Your task to perform on an android device: Open Reddit.com Image 0: 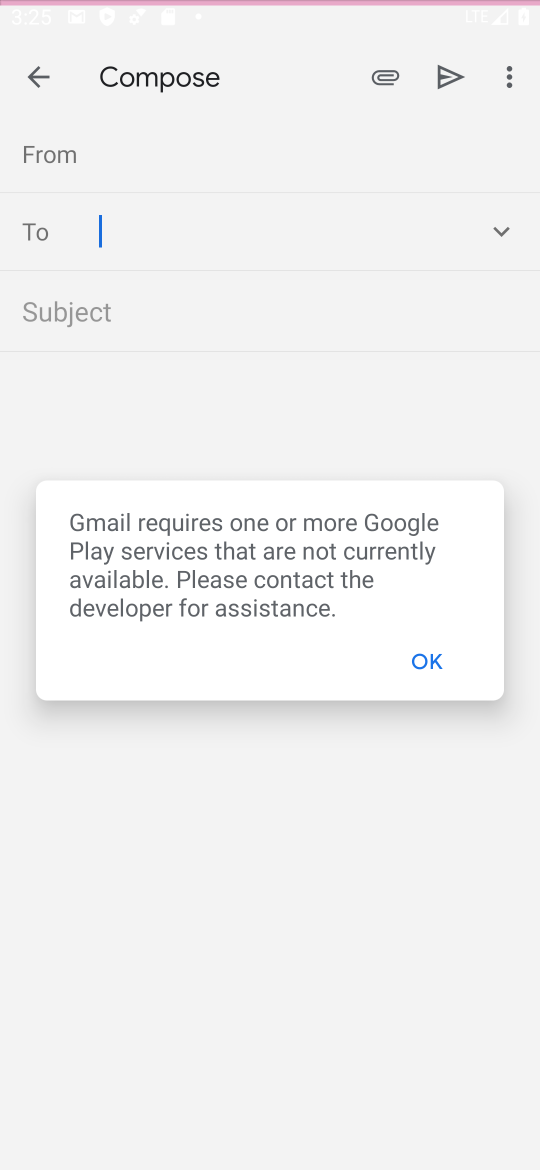
Step 0: press home button
Your task to perform on an android device: Open Reddit.com Image 1: 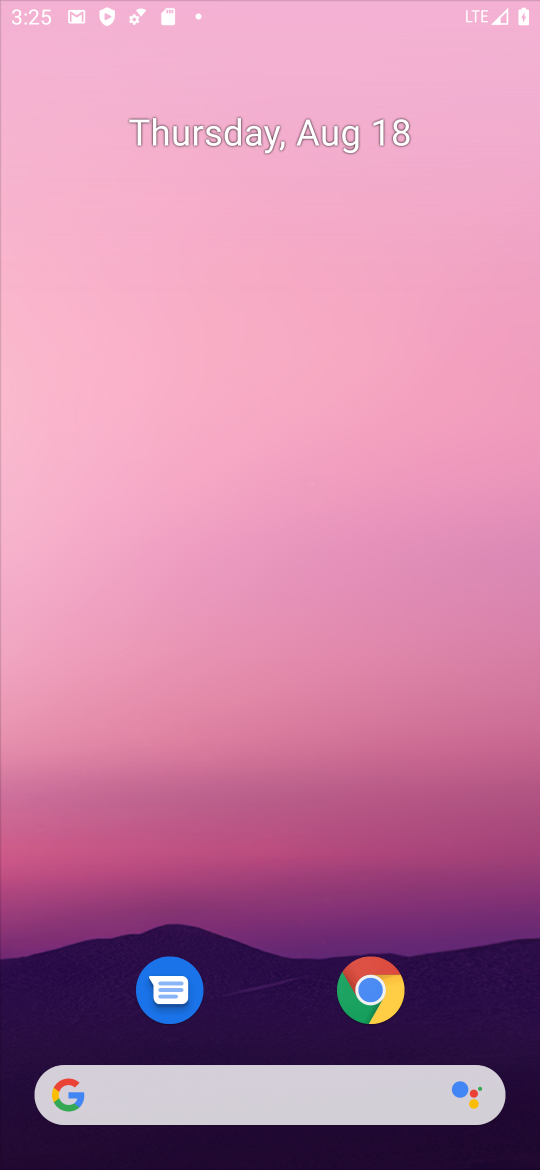
Step 1: press home button
Your task to perform on an android device: Open Reddit.com Image 2: 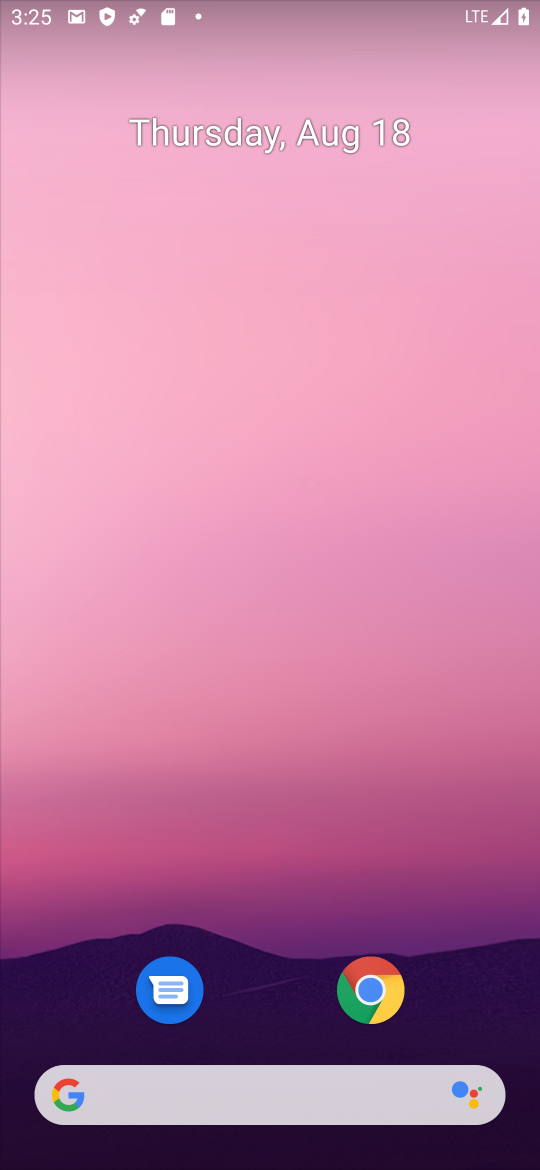
Step 2: press home button
Your task to perform on an android device: Open Reddit.com Image 3: 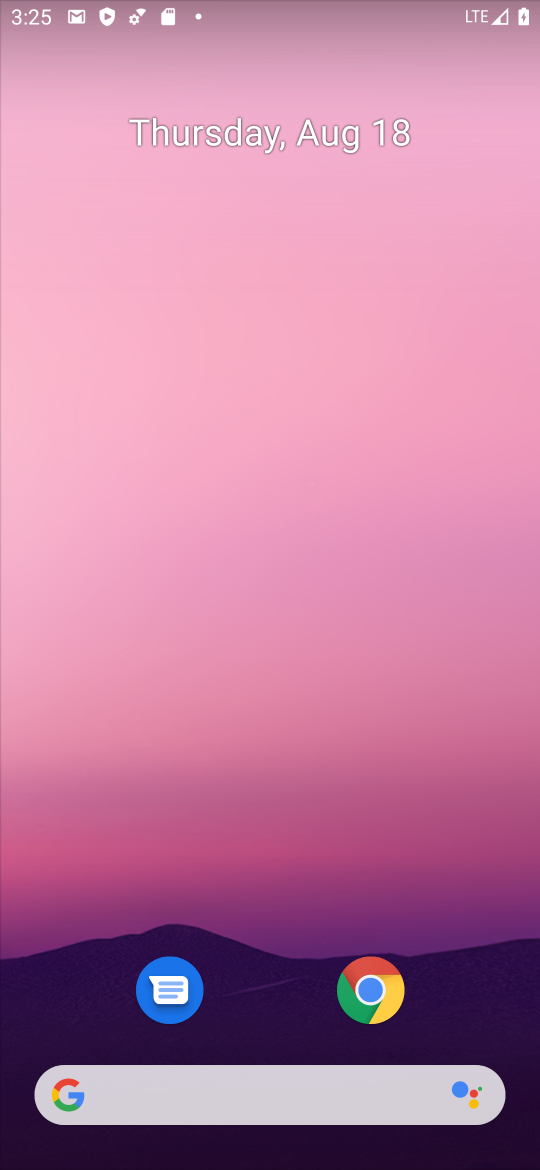
Step 3: drag from (257, 396) to (257, 68)
Your task to perform on an android device: Open Reddit.com Image 4: 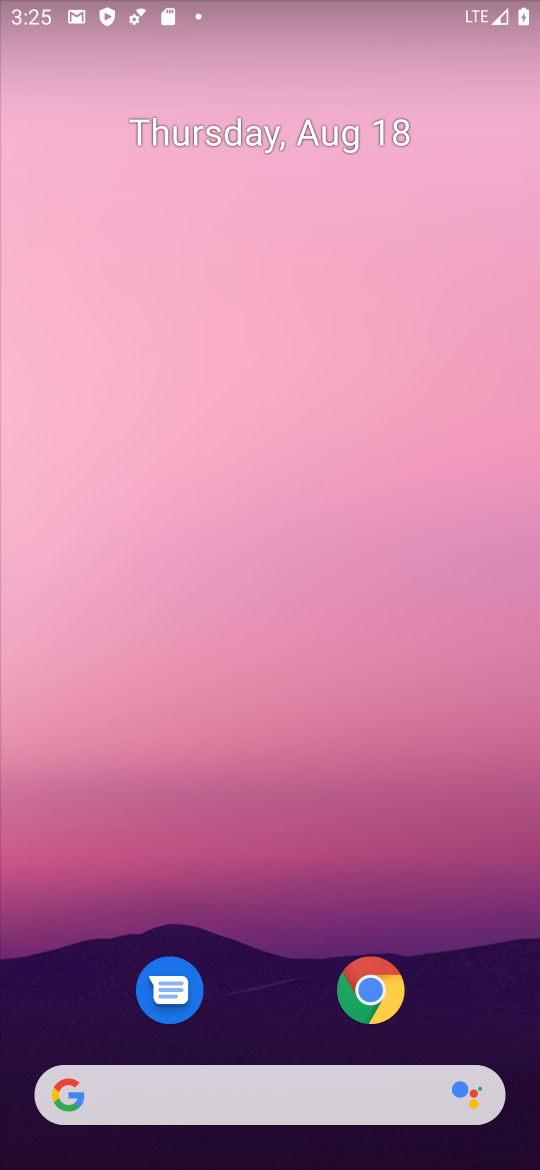
Step 4: drag from (275, 720) to (296, 46)
Your task to perform on an android device: Open Reddit.com Image 5: 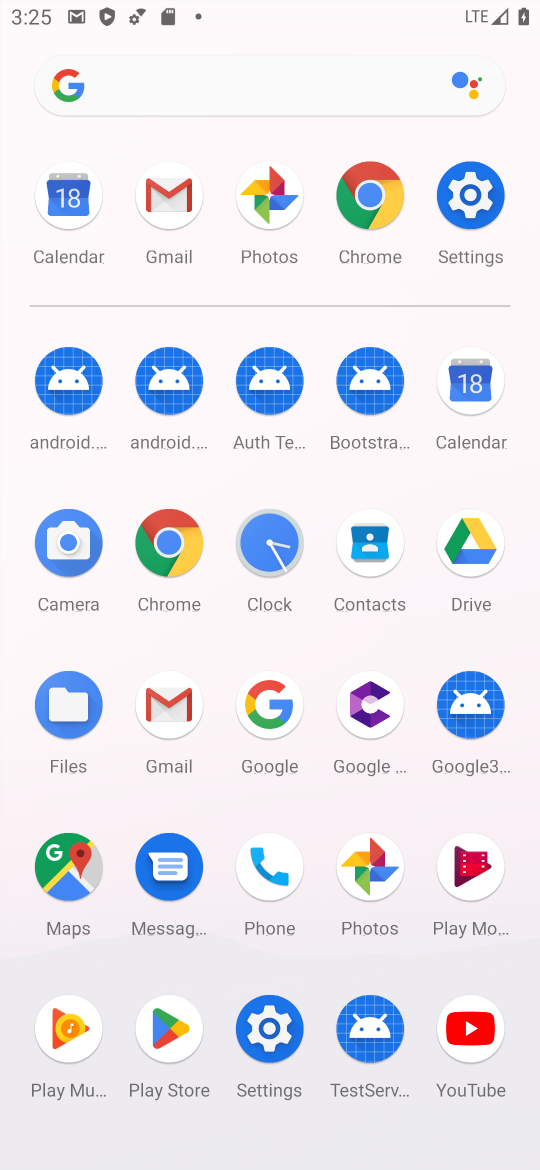
Step 5: click (172, 549)
Your task to perform on an android device: Open Reddit.com Image 6: 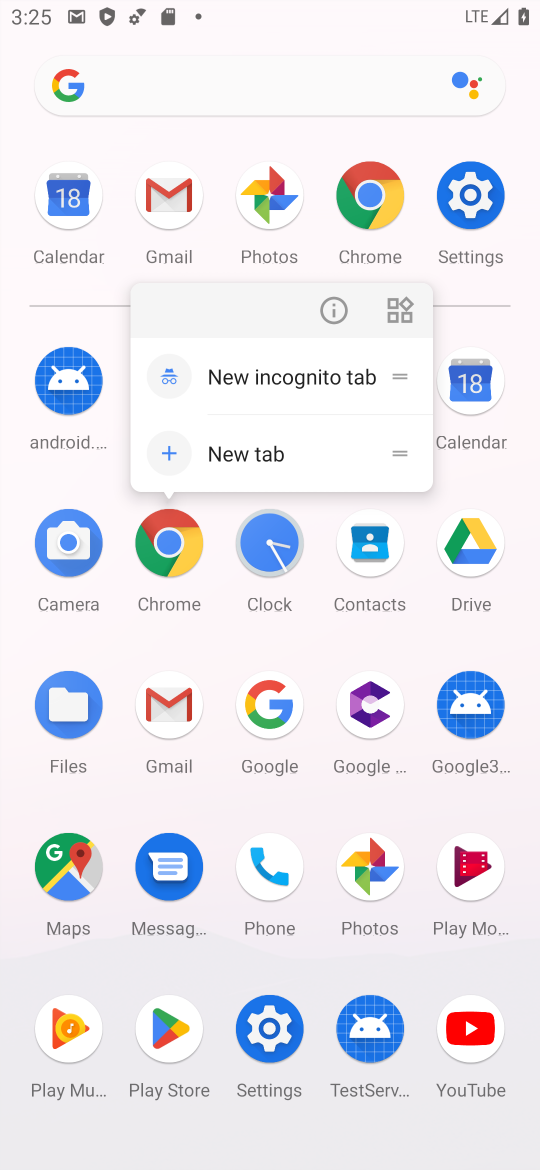
Step 6: click (157, 546)
Your task to perform on an android device: Open Reddit.com Image 7: 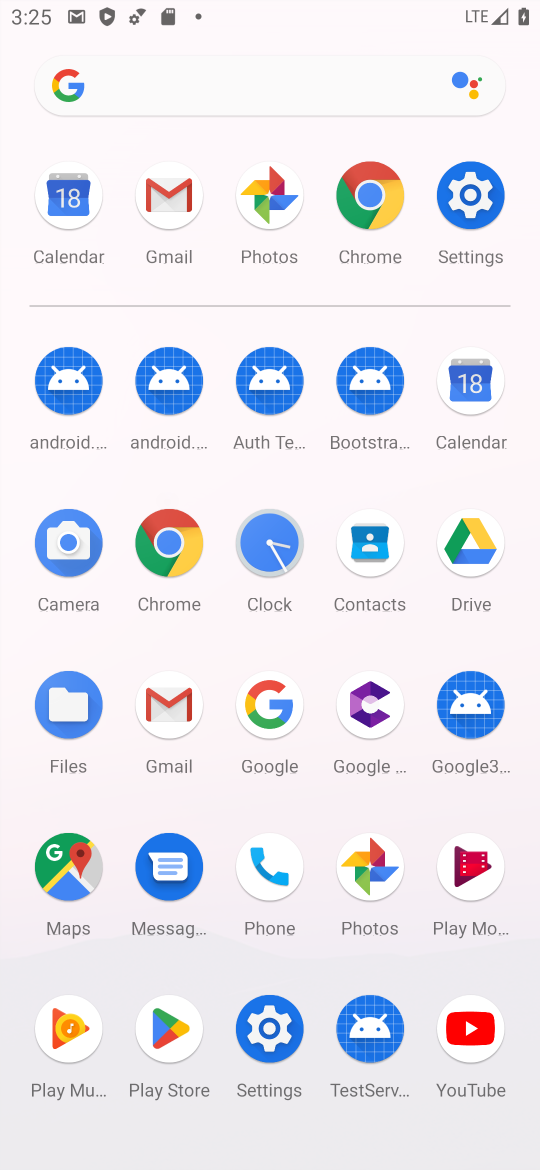
Step 7: click (167, 546)
Your task to perform on an android device: Open Reddit.com Image 8: 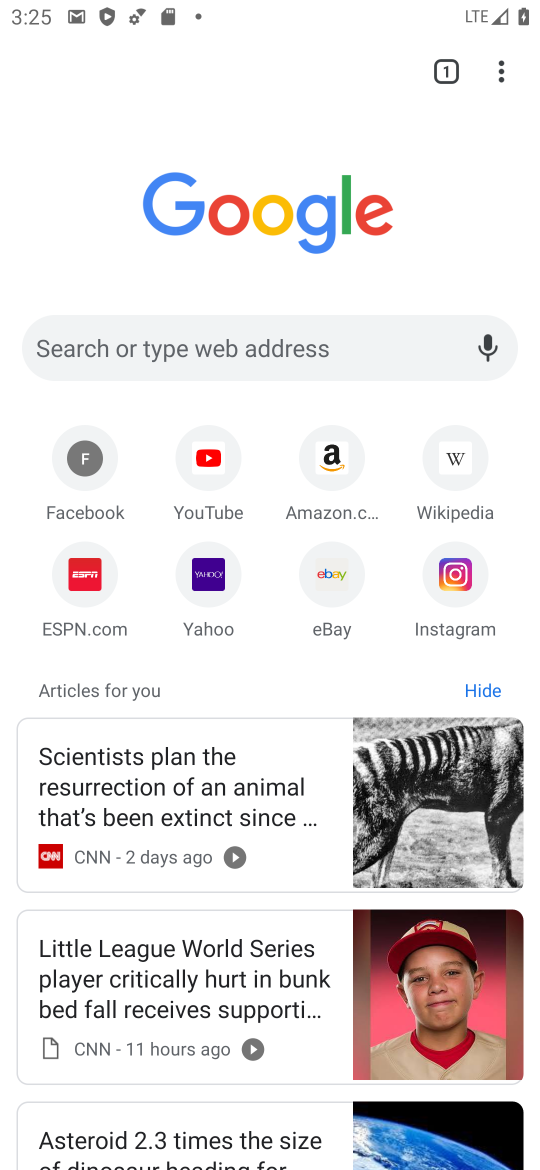
Step 8: click (279, 349)
Your task to perform on an android device: Open Reddit.com Image 9: 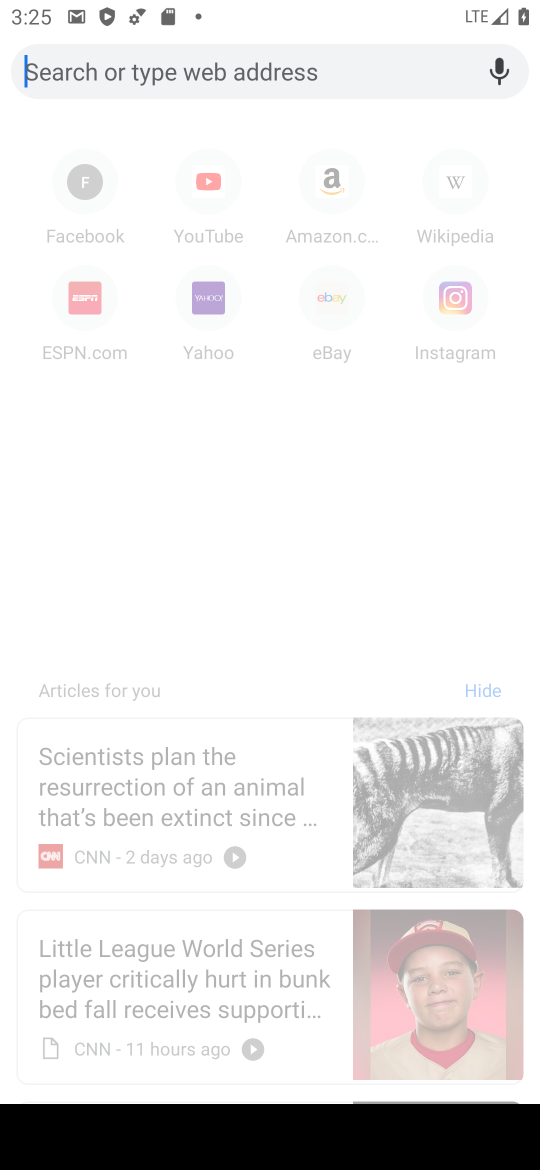
Step 9: type "reddit.com"
Your task to perform on an android device: Open Reddit.com Image 10: 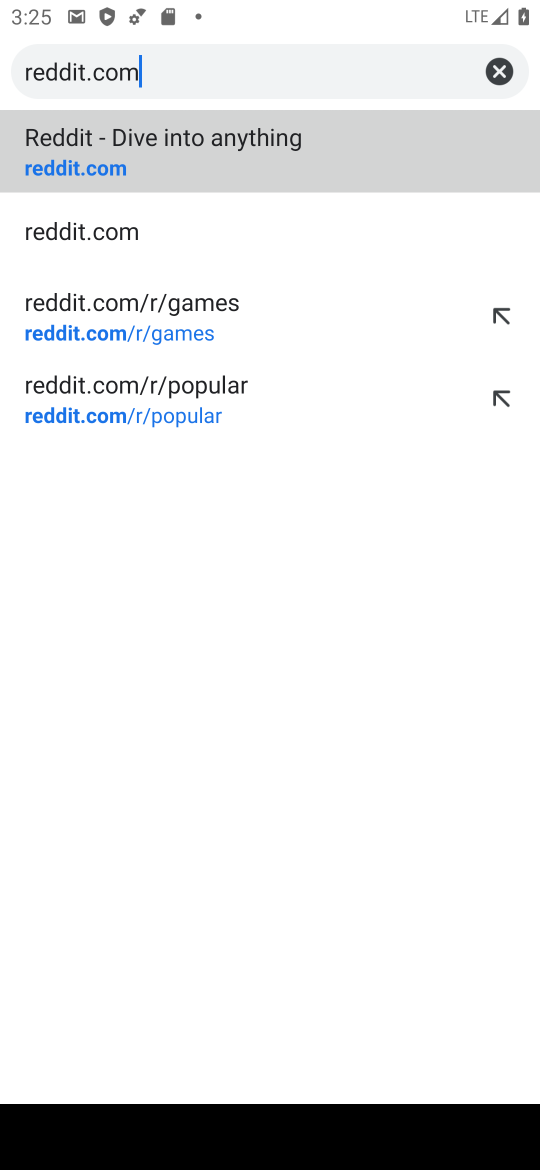
Step 10: click (88, 188)
Your task to perform on an android device: Open Reddit.com Image 11: 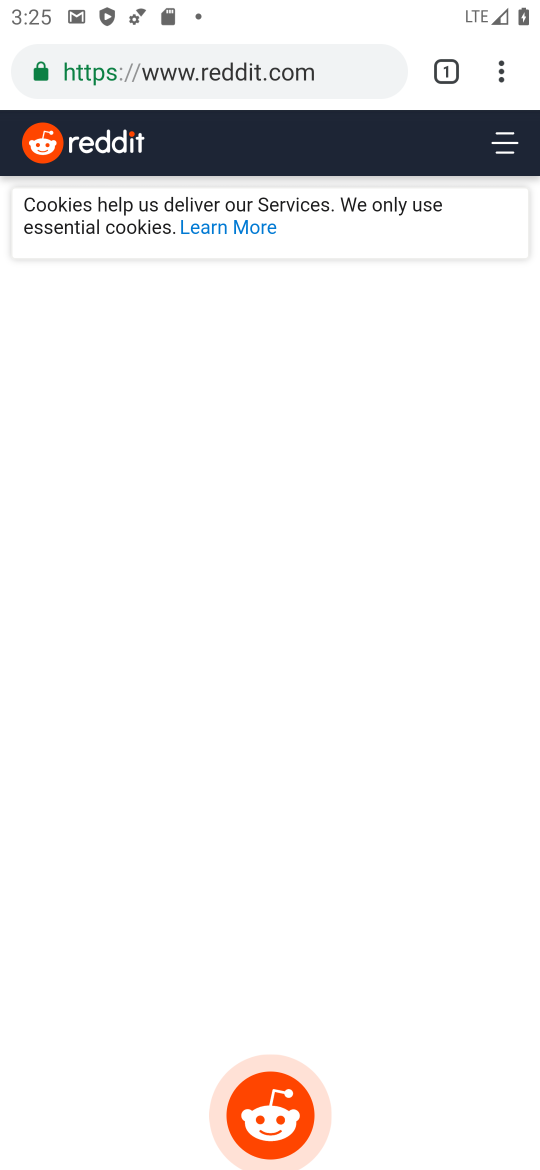
Step 11: task complete